Your task to perform on an android device: check storage Image 0: 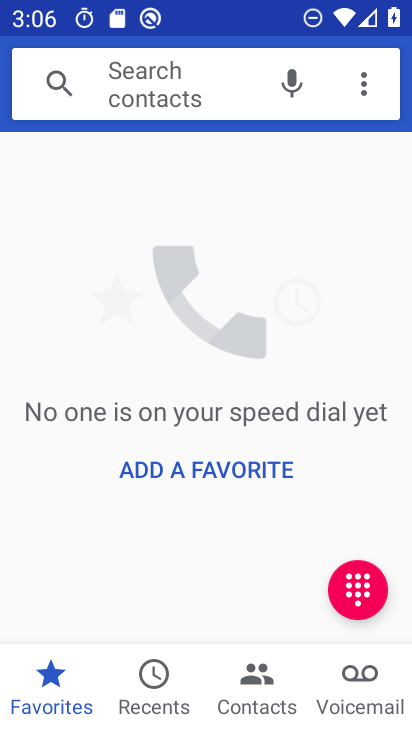
Step 0: drag from (204, 567) to (234, 282)
Your task to perform on an android device: check storage Image 1: 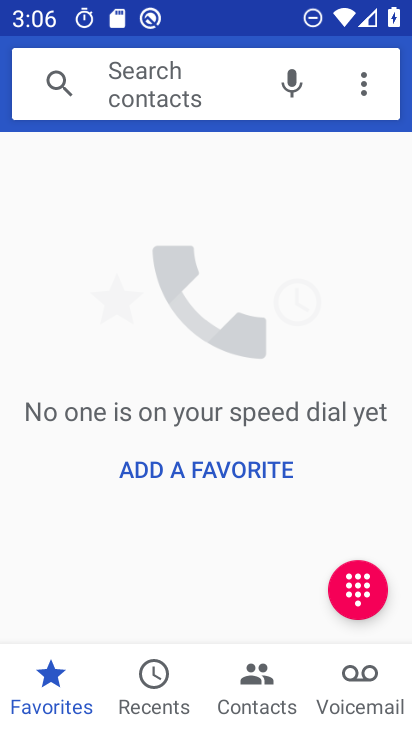
Step 1: press home button
Your task to perform on an android device: check storage Image 2: 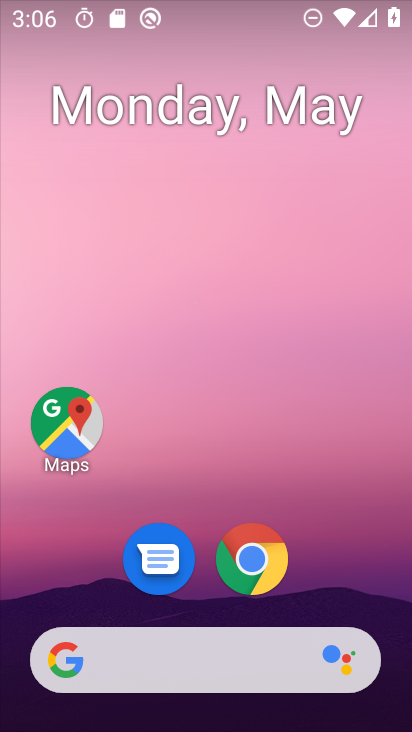
Step 2: drag from (212, 529) to (223, 145)
Your task to perform on an android device: check storage Image 3: 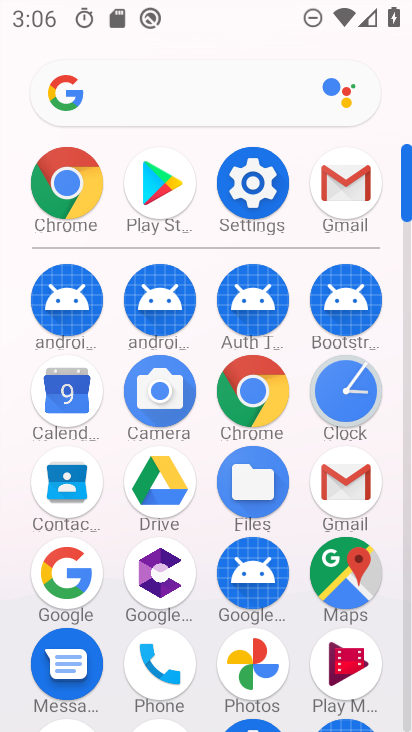
Step 3: click (260, 168)
Your task to perform on an android device: check storage Image 4: 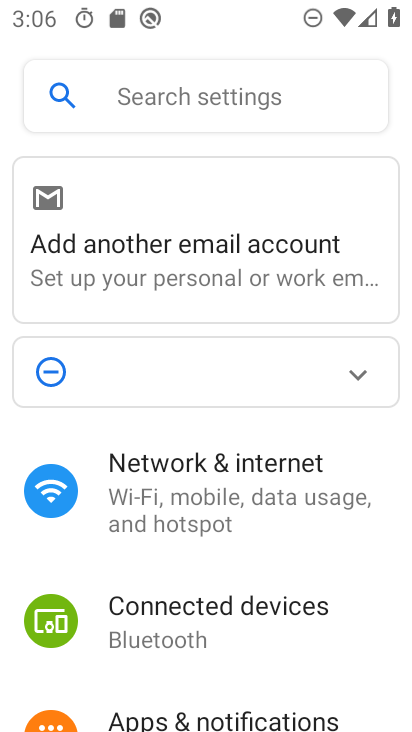
Step 4: drag from (203, 631) to (277, 219)
Your task to perform on an android device: check storage Image 5: 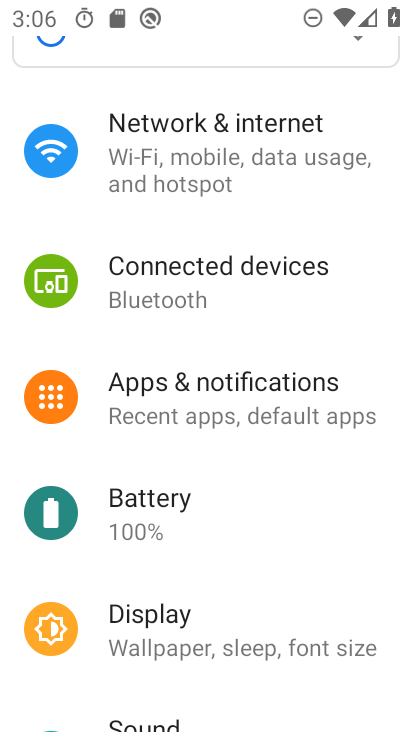
Step 5: drag from (220, 595) to (249, 340)
Your task to perform on an android device: check storage Image 6: 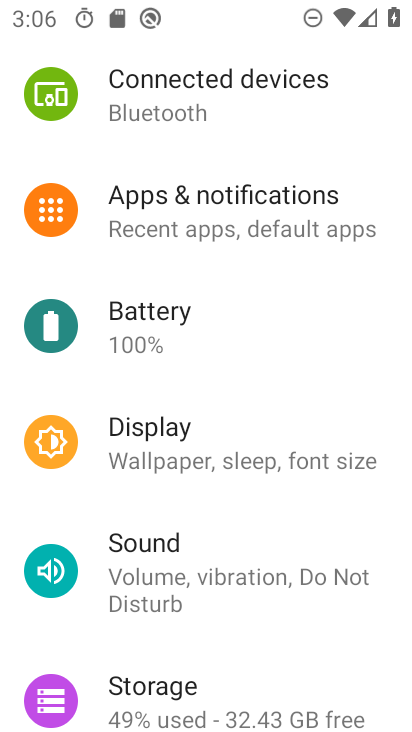
Step 6: click (203, 697)
Your task to perform on an android device: check storage Image 7: 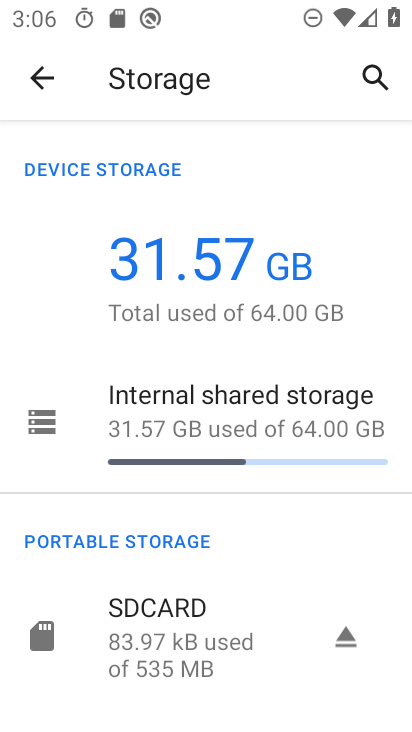
Step 7: task complete